Your task to perform on an android device: Go to Android settings Image 0: 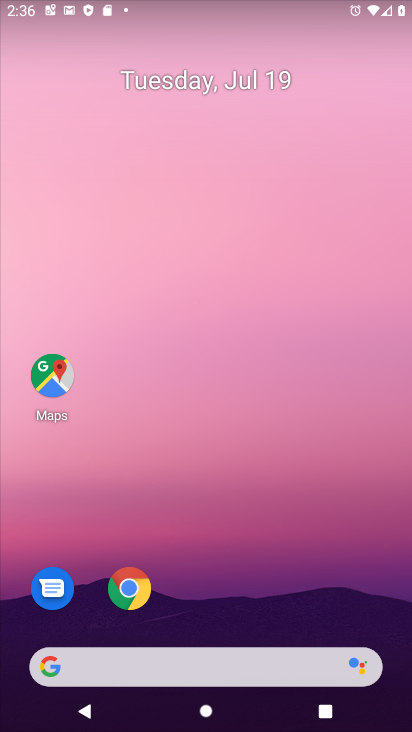
Step 0: drag from (381, 609) to (316, 33)
Your task to perform on an android device: Go to Android settings Image 1: 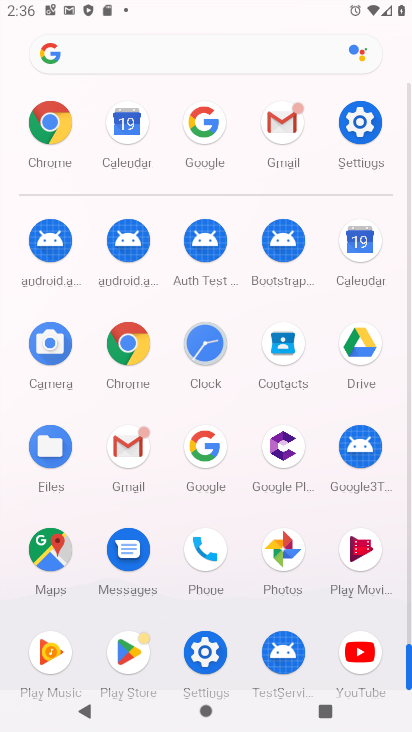
Step 1: click (354, 125)
Your task to perform on an android device: Go to Android settings Image 2: 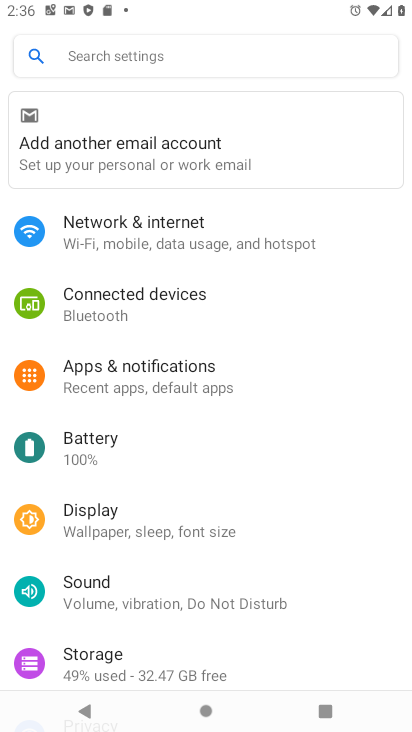
Step 2: task complete